Your task to perform on an android device: What is the news today? Image 0: 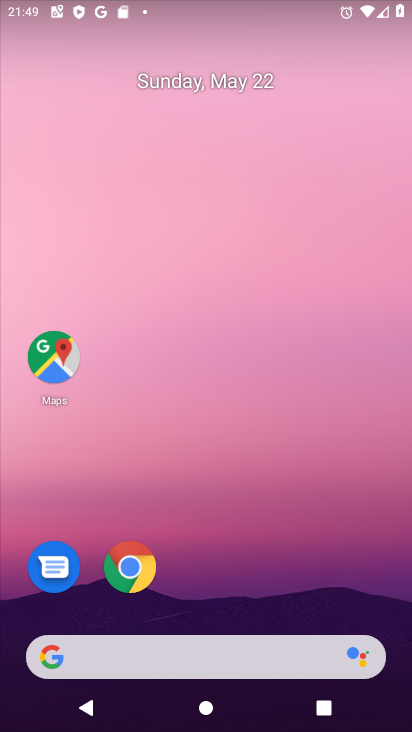
Step 0: drag from (257, 546) to (217, 526)
Your task to perform on an android device: What is the news today? Image 1: 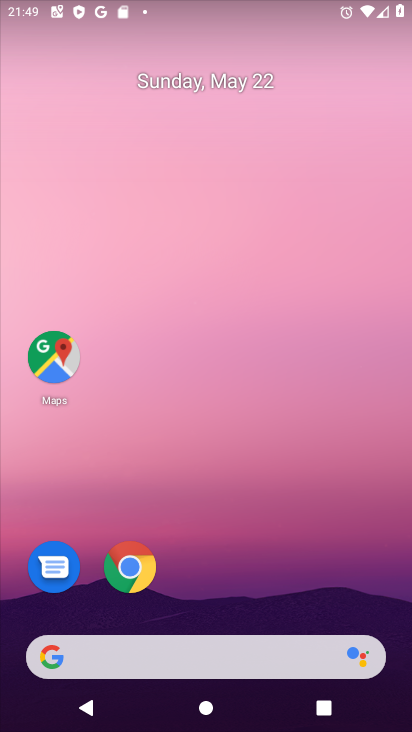
Step 1: click (171, 653)
Your task to perform on an android device: What is the news today? Image 2: 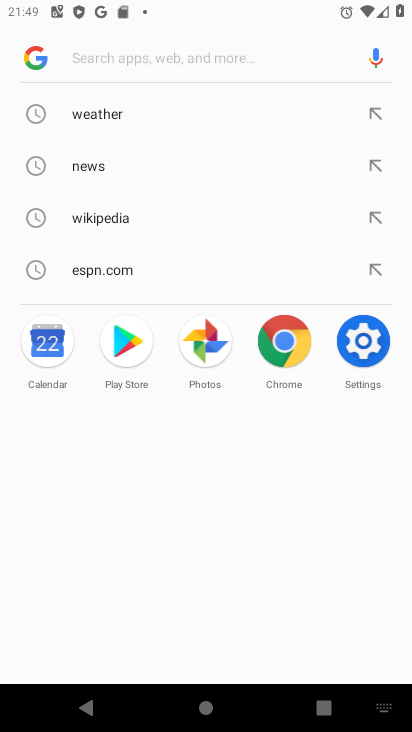
Step 2: type "news today ?"
Your task to perform on an android device: What is the news today? Image 3: 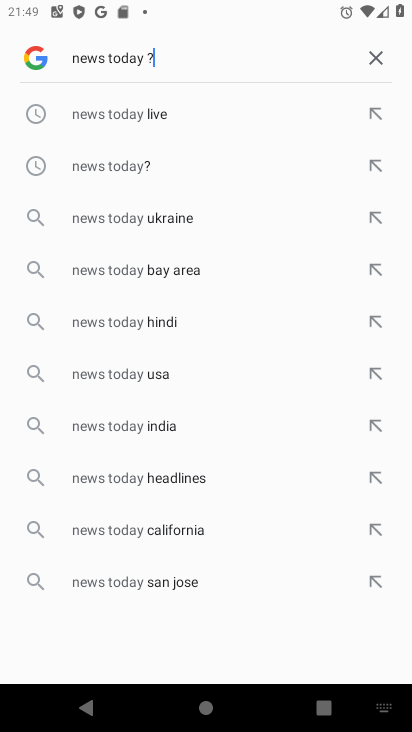
Step 3: click (146, 166)
Your task to perform on an android device: What is the news today? Image 4: 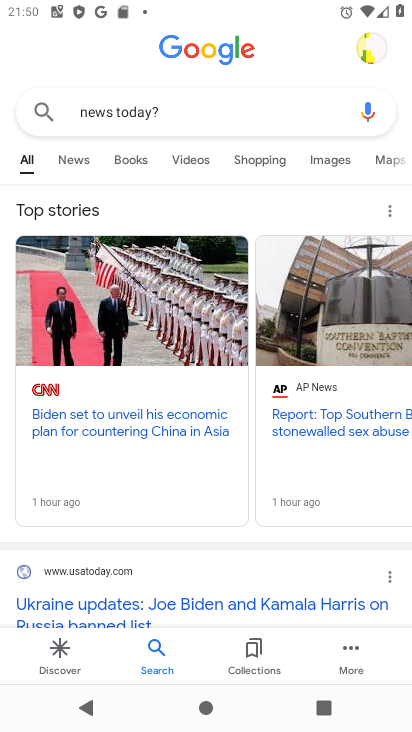
Step 4: task complete